Your task to perform on an android device: turn on sleep mode Image 0: 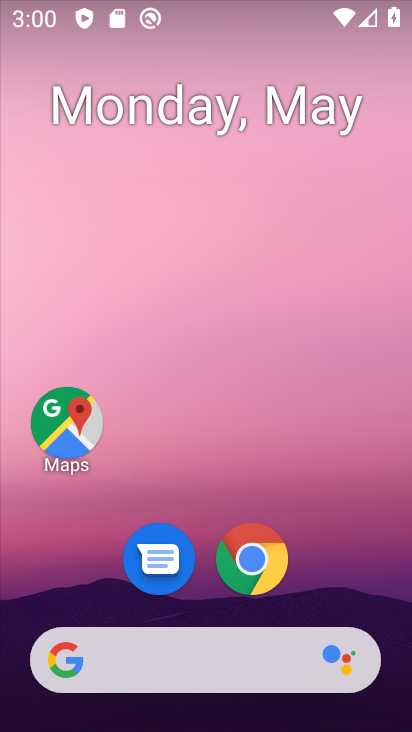
Step 0: drag from (295, 731) to (175, 12)
Your task to perform on an android device: turn on sleep mode Image 1: 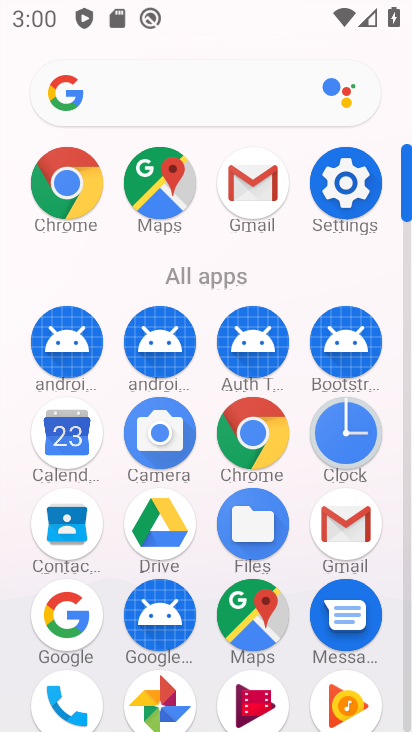
Step 1: click (342, 177)
Your task to perform on an android device: turn on sleep mode Image 2: 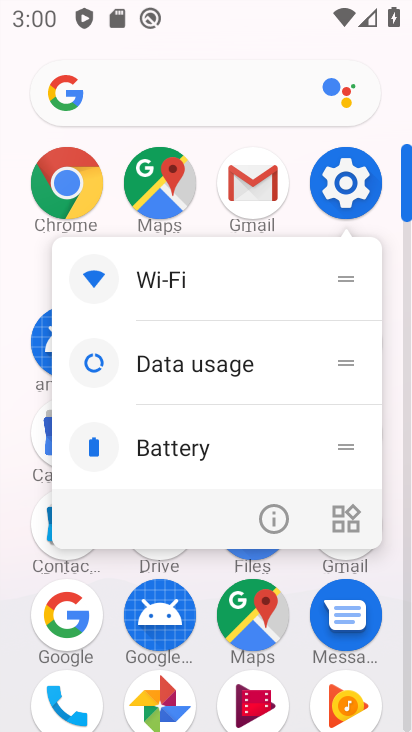
Step 2: click (25, 272)
Your task to perform on an android device: turn on sleep mode Image 3: 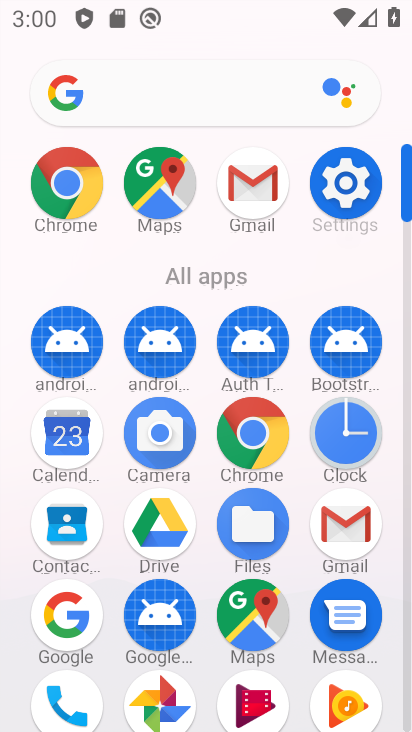
Step 3: click (25, 272)
Your task to perform on an android device: turn on sleep mode Image 4: 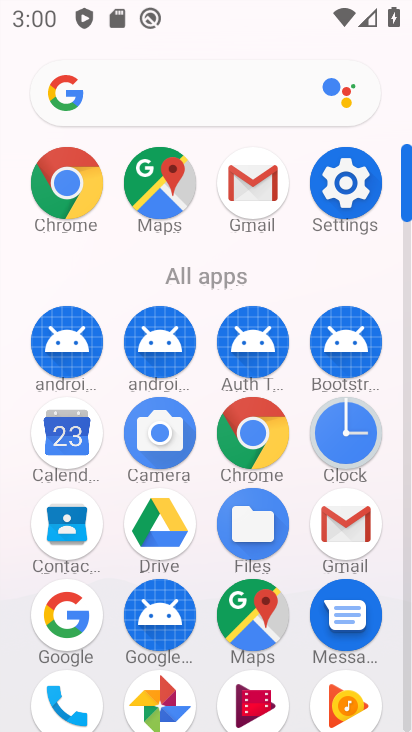
Step 4: click (25, 272)
Your task to perform on an android device: turn on sleep mode Image 5: 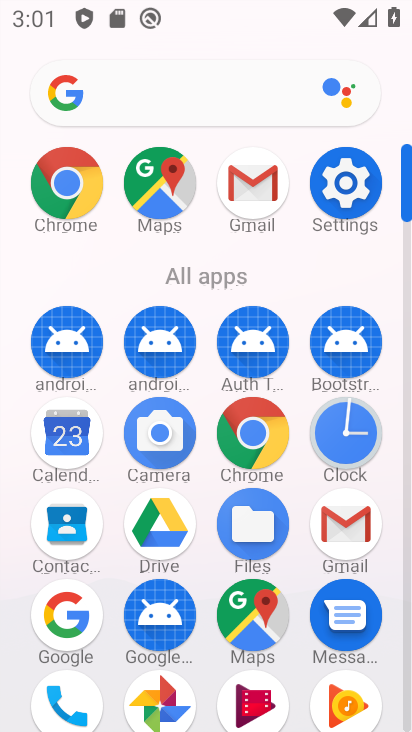
Step 5: click (356, 183)
Your task to perform on an android device: turn on sleep mode Image 6: 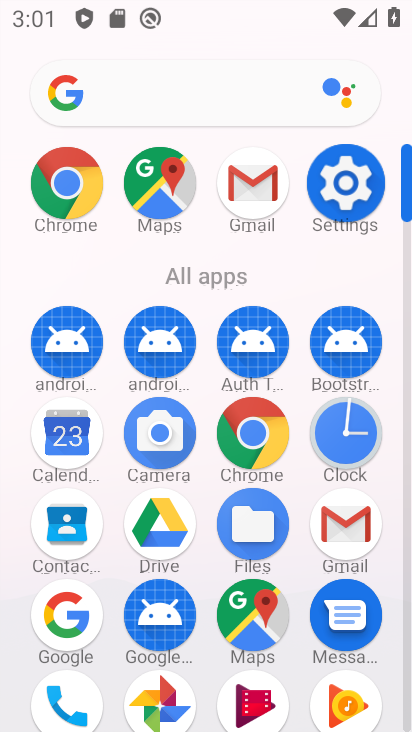
Step 6: click (357, 182)
Your task to perform on an android device: turn on sleep mode Image 7: 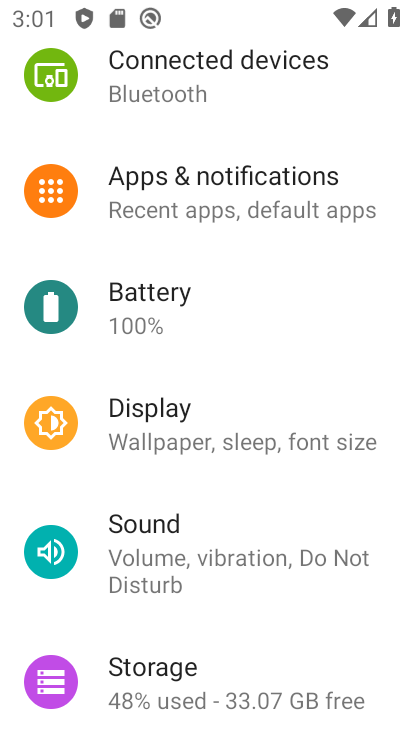
Step 7: click (166, 434)
Your task to perform on an android device: turn on sleep mode Image 8: 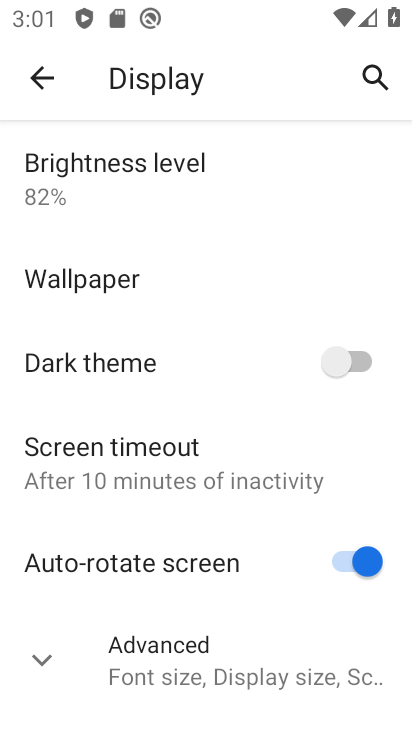
Step 8: click (114, 474)
Your task to perform on an android device: turn on sleep mode Image 9: 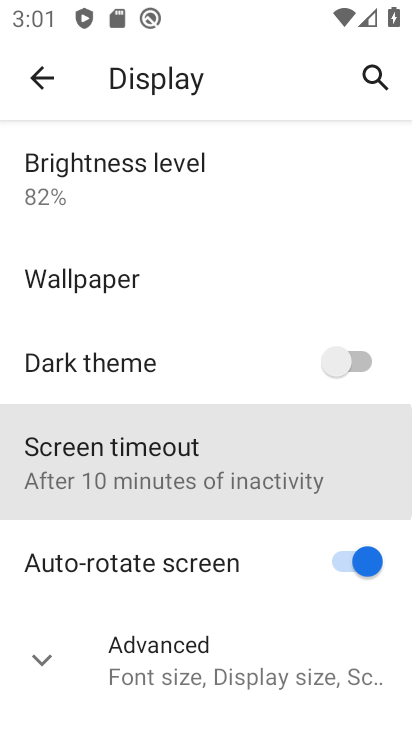
Step 9: click (115, 473)
Your task to perform on an android device: turn on sleep mode Image 10: 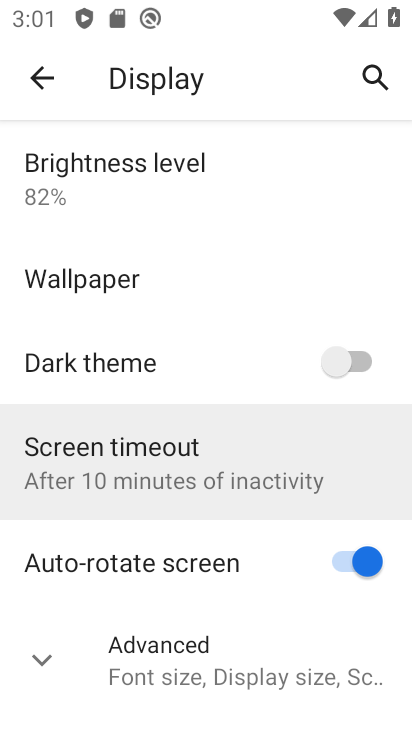
Step 10: click (116, 472)
Your task to perform on an android device: turn on sleep mode Image 11: 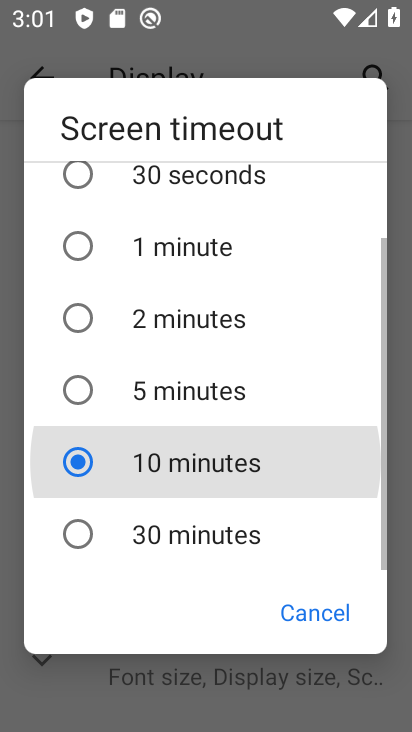
Step 11: click (117, 472)
Your task to perform on an android device: turn on sleep mode Image 12: 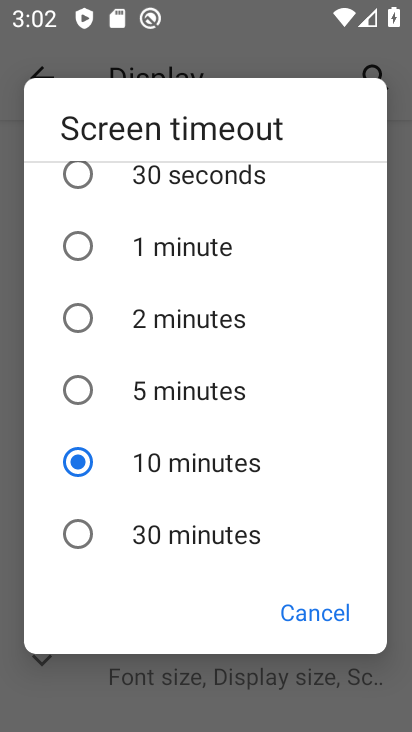
Step 12: click (309, 604)
Your task to perform on an android device: turn on sleep mode Image 13: 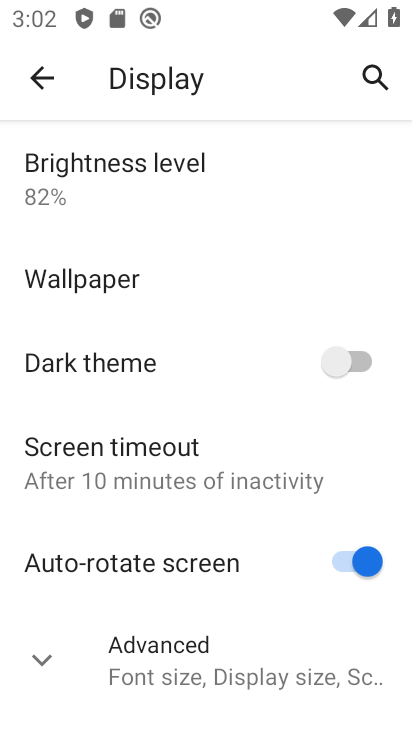
Step 13: click (317, 608)
Your task to perform on an android device: turn on sleep mode Image 14: 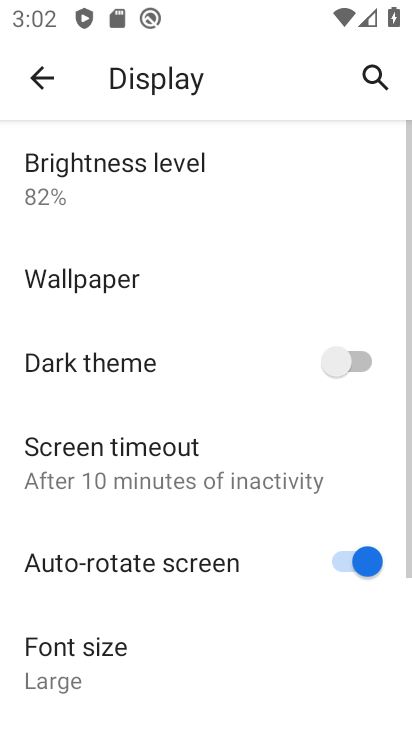
Step 14: task complete